Your task to perform on an android device: Open the phone app and click the voicemail tab. Image 0: 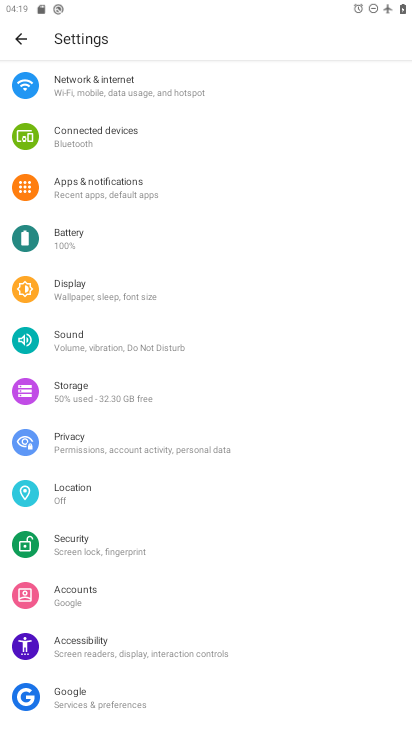
Step 0: press home button
Your task to perform on an android device: Open the phone app and click the voicemail tab. Image 1: 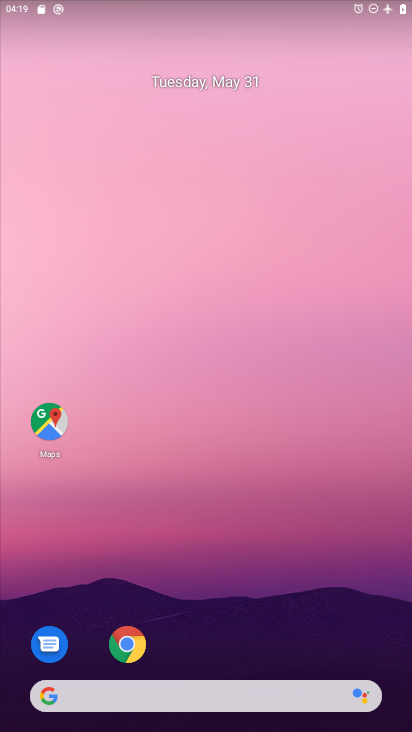
Step 1: drag from (242, 596) to (280, 127)
Your task to perform on an android device: Open the phone app and click the voicemail tab. Image 2: 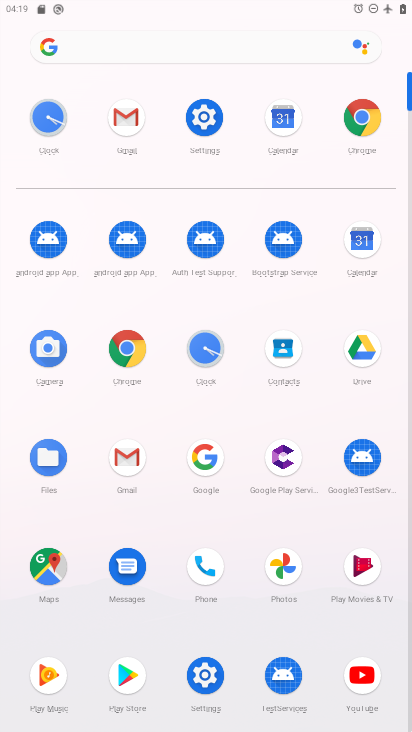
Step 2: click (211, 555)
Your task to perform on an android device: Open the phone app and click the voicemail tab. Image 3: 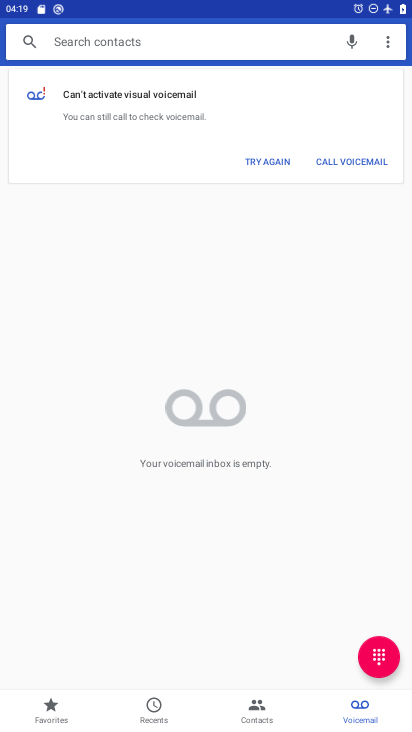
Step 3: click (359, 712)
Your task to perform on an android device: Open the phone app and click the voicemail tab. Image 4: 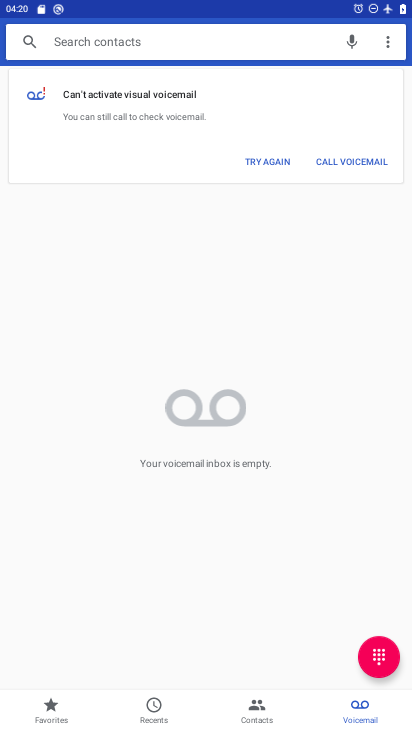
Step 4: task complete